Your task to perform on an android device: turn off smart reply in the gmail app Image 0: 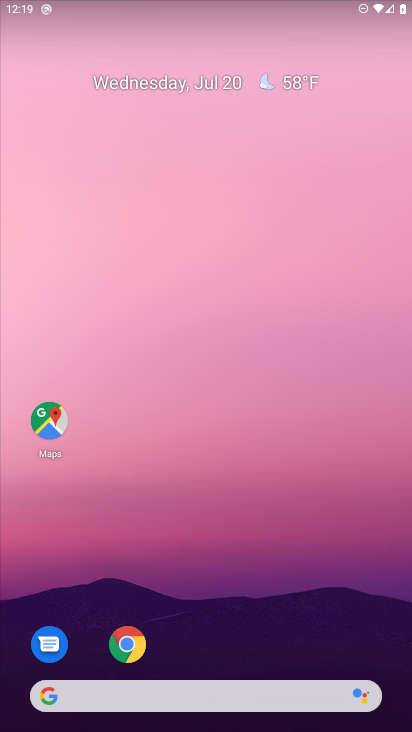
Step 0: drag from (23, 686) to (326, 12)
Your task to perform on an android device: turn off smart reply in the gmail app Image 1: 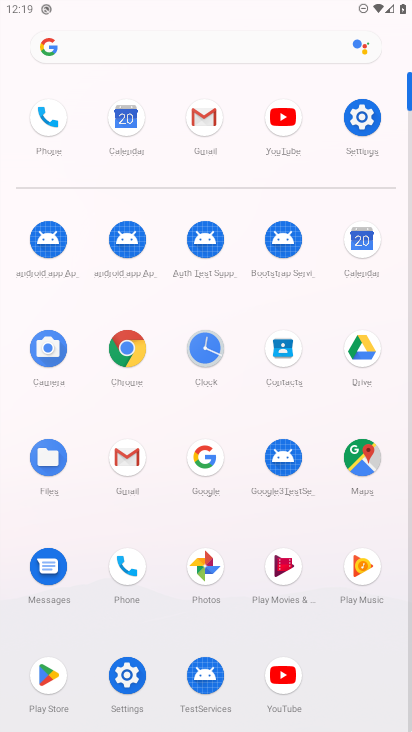
Step 1: click (131, 461)
Your task to perform on an android device: turn off smart reply in the gmail app Image 2: 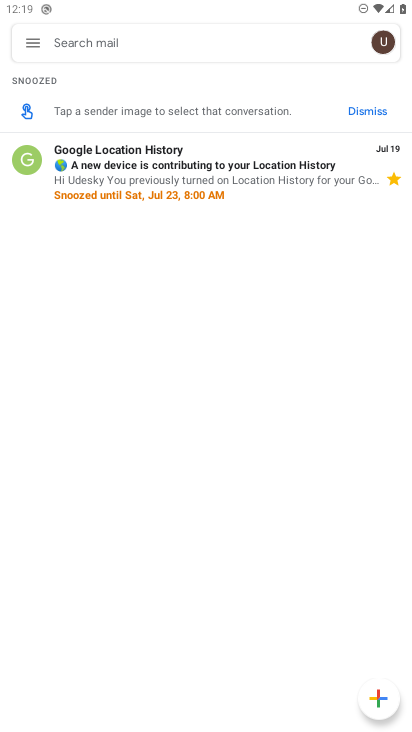
Step 2: click (39, 39)
Your task to perform on an android device: turn off smart reply in the gmail app Image 3: 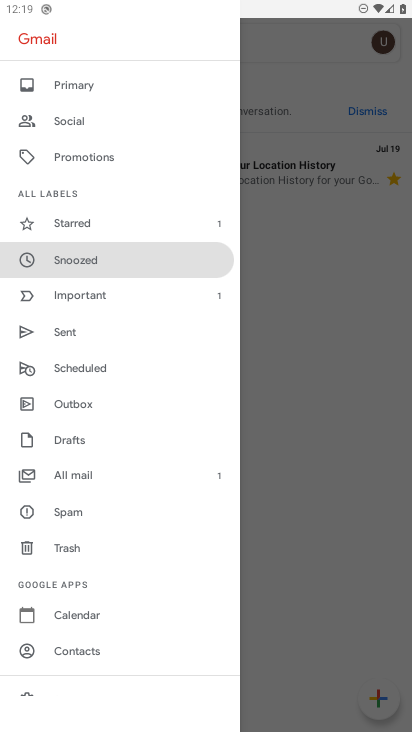
Step 3: click (354, 302)
Your task to perform on an android device: turn off smart reply in the gmail app Image 4: 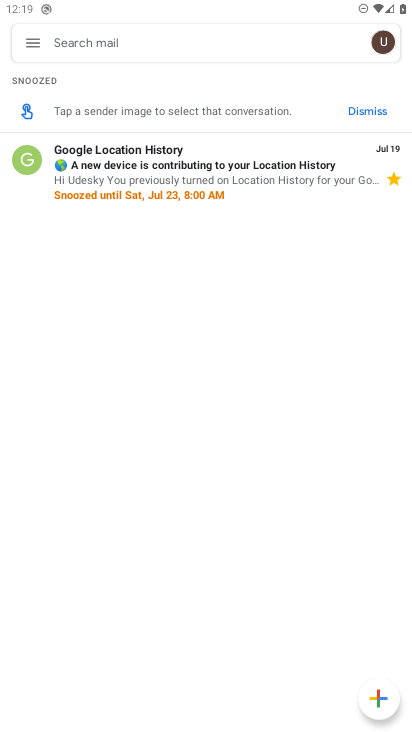
Step 4: click (33, 39)
Your task to perform on an android device: turn off smart reply in the gmail app Image 5: 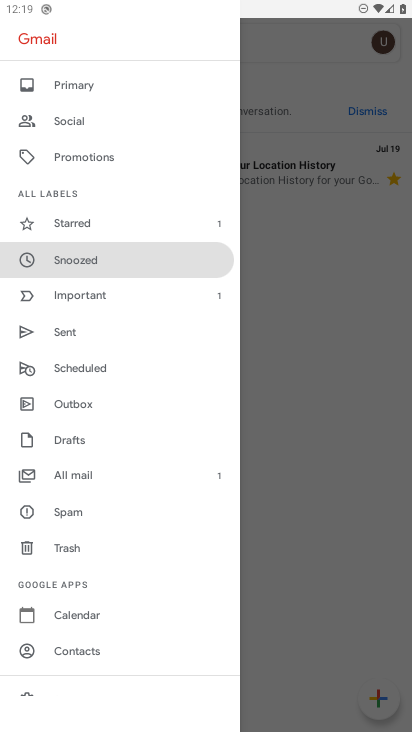
Step 5: drag from (98, 658) to (152, 187)
Your task to perform on an android device: turn off smart reply in the gmail app Image 6: 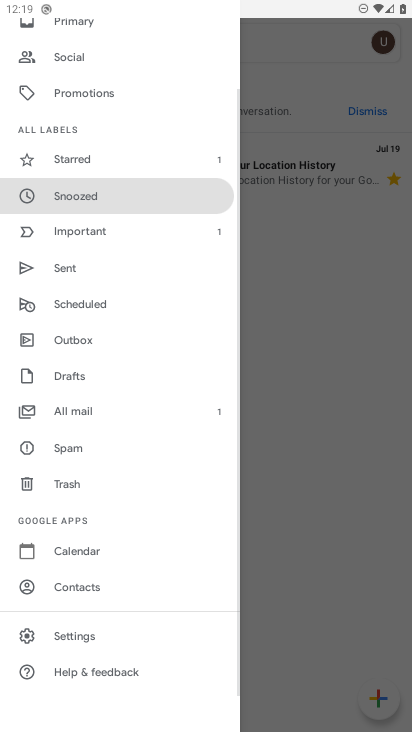
Step 6: click (84, 631)
Your task to perform on an android device: turn off smart reply in the gmail app Image 7: 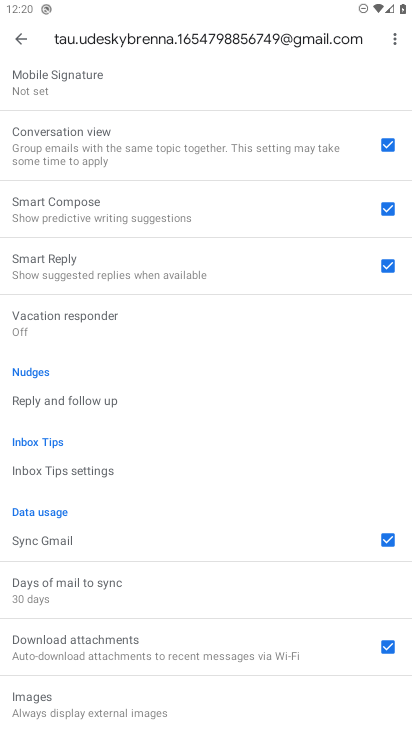
Step 7: click (386, 271)
Your task to perform on an android device: turn off smart reply in the gmail app Image 8: 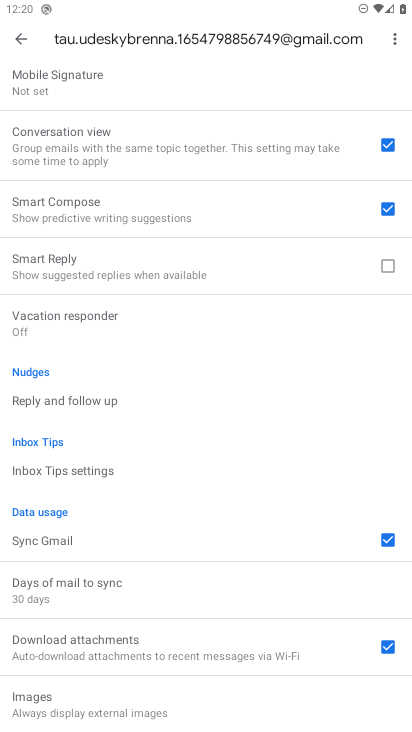
Step 8: task complete